Your task to perform on an android device: When is my next meeting? Image 0: 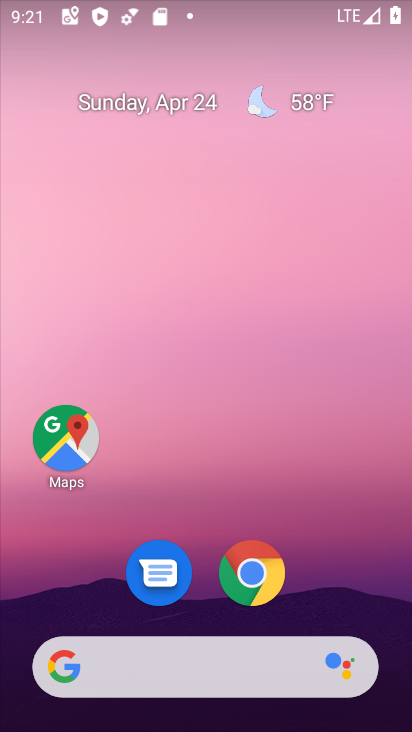
Step 0: drag from (340, 557) to (304, 100)
Your task to perform on an android device: When is my next meeting? Image 1: 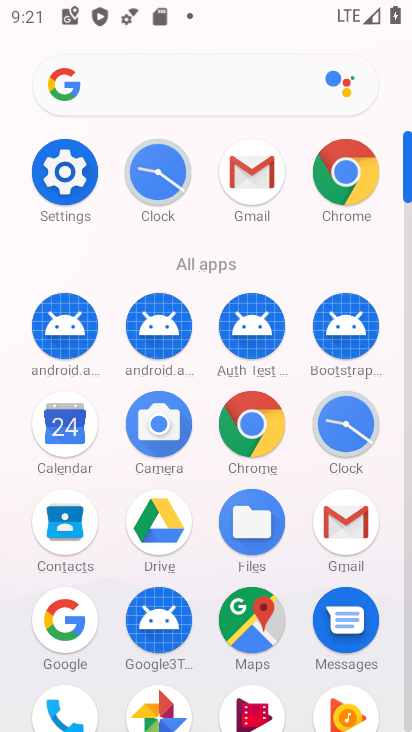
Step 1: click (69, 419)
Your task to perform on an android device: When is my next meeting? Image 2: 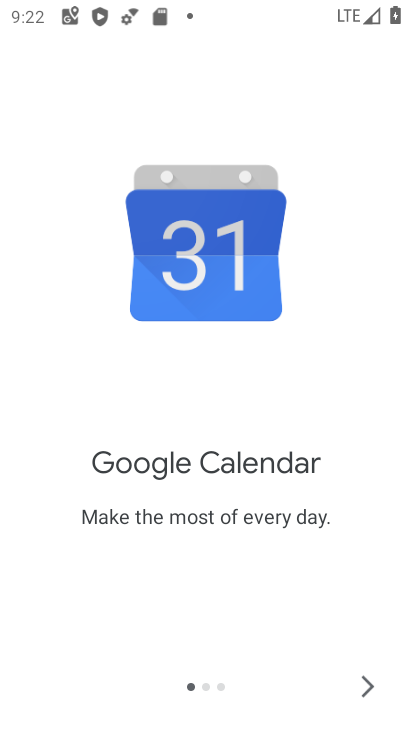
Step 2: click (367, 678)
Your task to perform on an android device: When is my next meeting? Image 3: 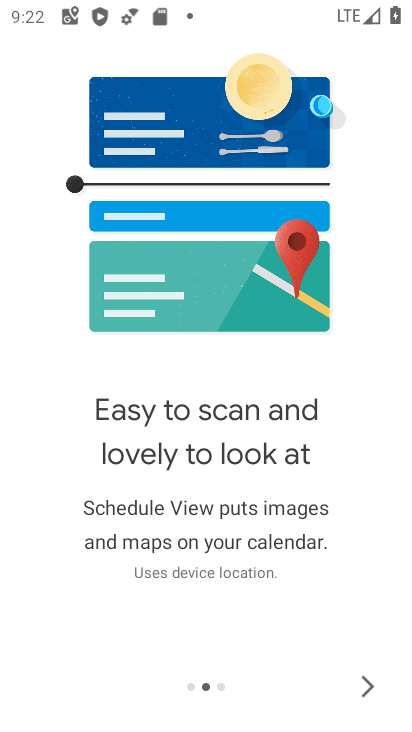
Step 3: click (367, 676)
Your task to perform on an android device: When is my next meeting? Image 4: 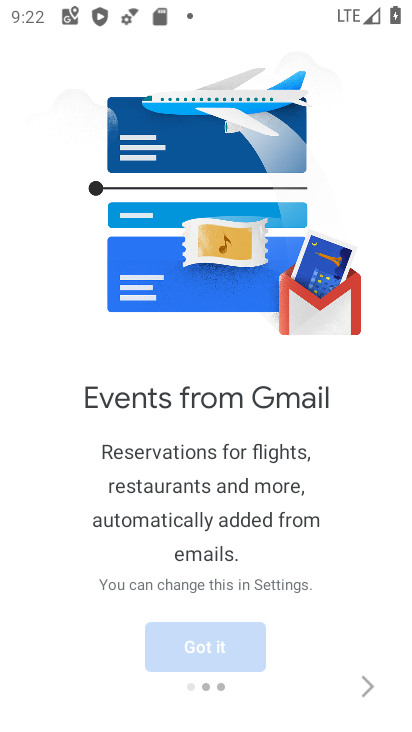
Step 4: click (366, 675)
Your task to perform on an android device: When is my next meeting? Image 5: 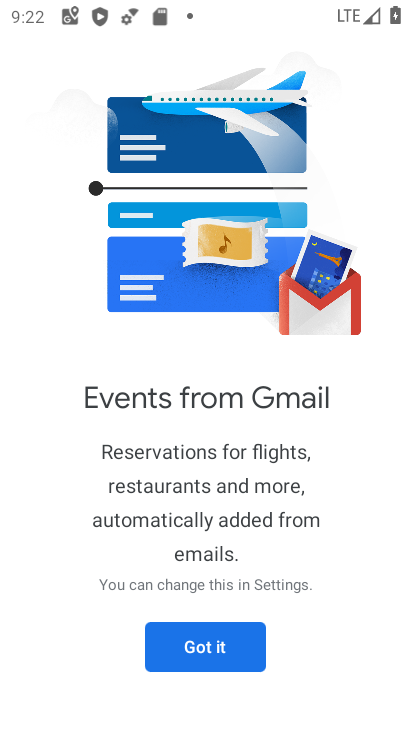
Step 5: click (223, 631)
Your task to perform on an android device: When is my next meeting? Image 6: 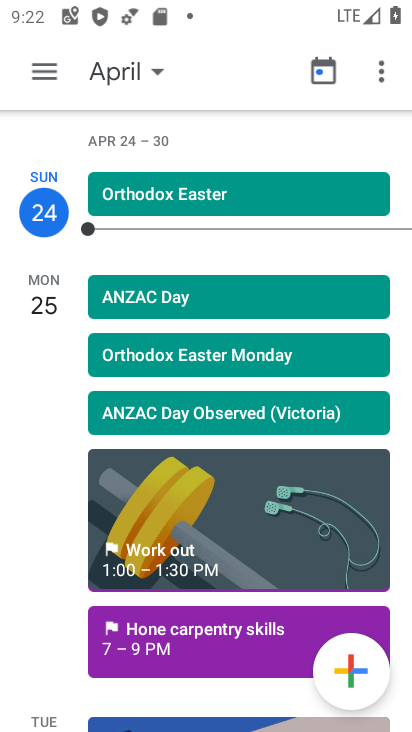
Step 6: task complete